Your task to perform on an android device: manage bookmarks in the chrome app Image 0: 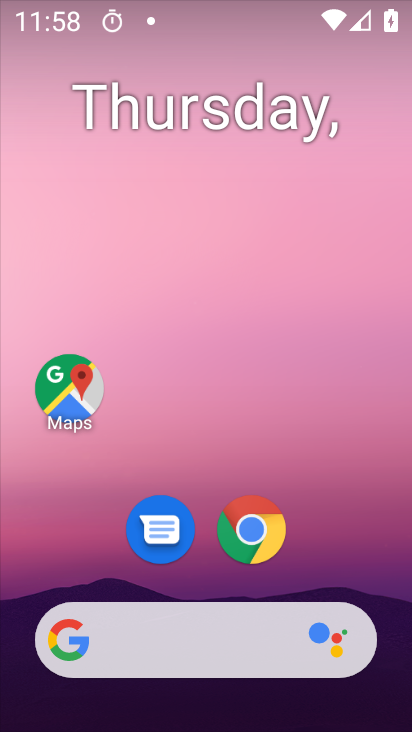
Step 0: click (247, 510)
Your task to perform on an android device: manage bookmarks in the chrome app Image 1: 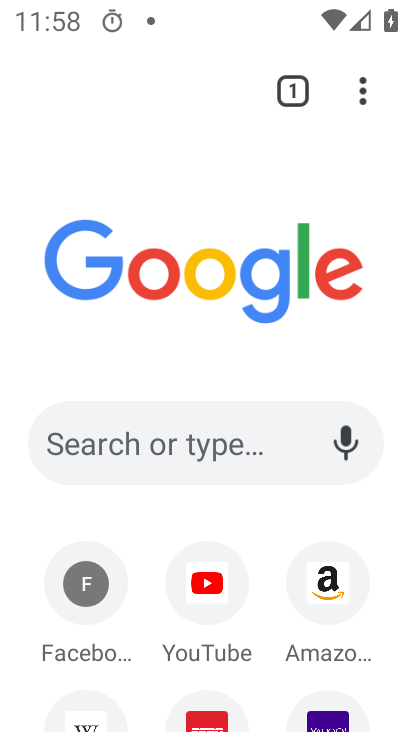
Step 1: click (383, 87)
Your task to perform on an android device: manage bookmarks in the chrome app Image 2: 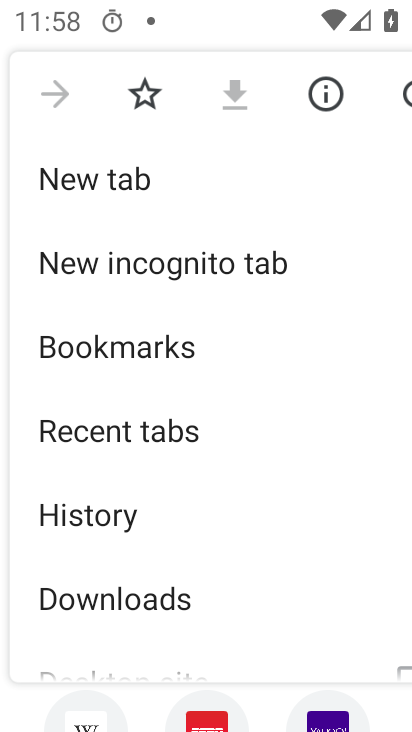
Step 2: click (137, 348)
Your task to perform on an android device: manage bookmarks in the chrome app Image 3: 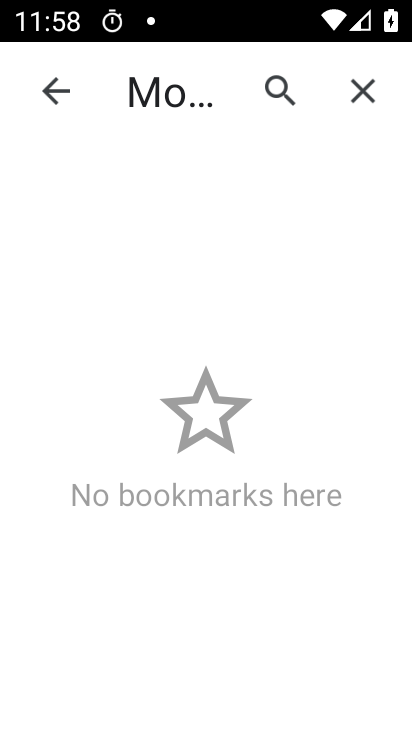
Step 3: task complete